Your task to perform on an android device: open app "Paramount+ | Peak Streaming" Image 0: 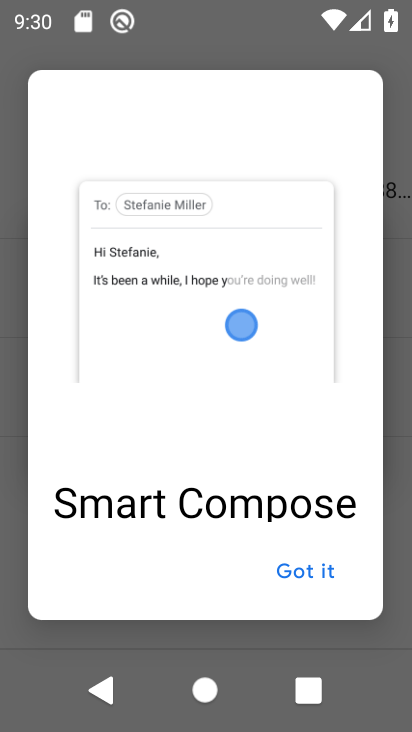
Step 0: press home button
Your task to perform on an android device: open app "Paramount+ | Peak Streaming" Image 1: 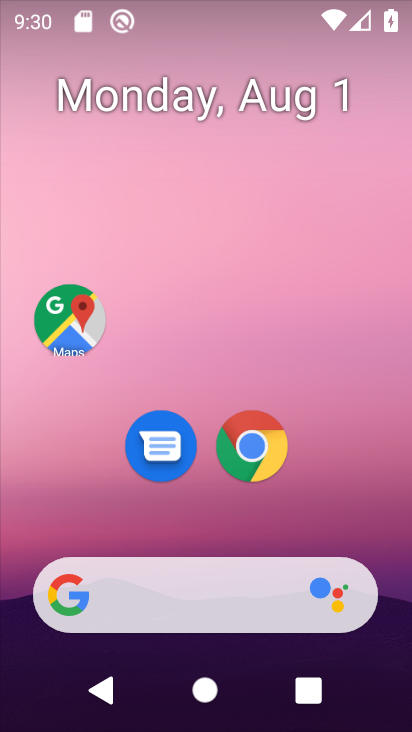
Step 1: drag from (140, 518) to (147, 52)
Your task to perform on an android device: open app "Paramount+ | Peak Streaming" Image 2: 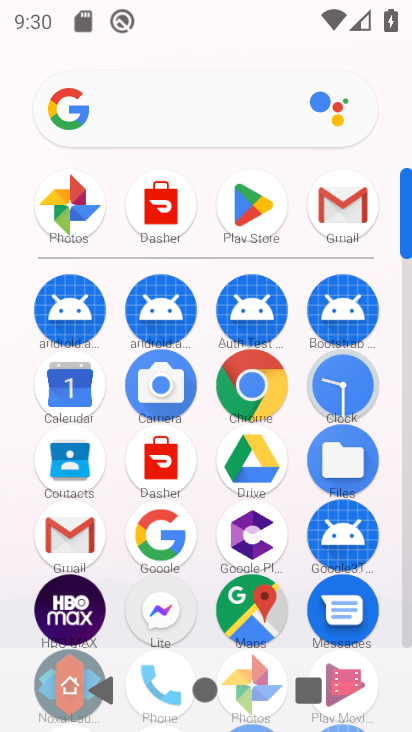
Step 2: click (242, 203)
Your task to perform on an android device: open app "Paramount+ | Peak Streaming" Image 3: 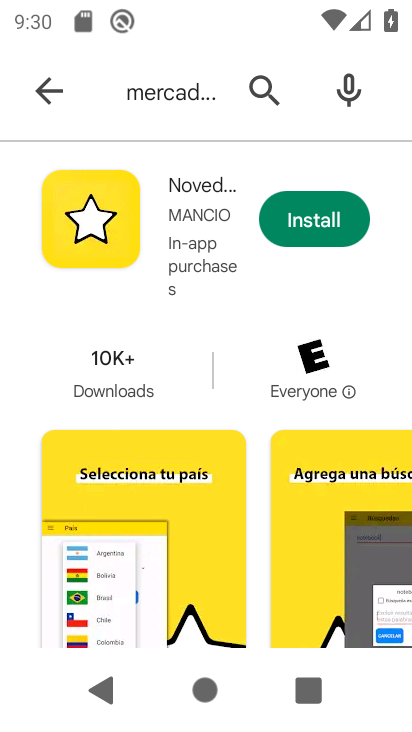
Step 3: click (252, 83)
Your task to perform on an android device: open app "Paramount+ | Peak Streaming" Image 4: 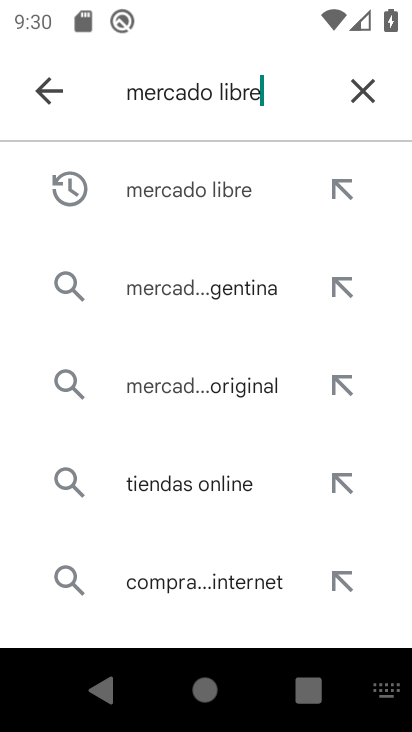
Step 4: click (351, 85)
Your task to perform on an android device: open app "Paramount+ | Peak Streaming" Image 5: 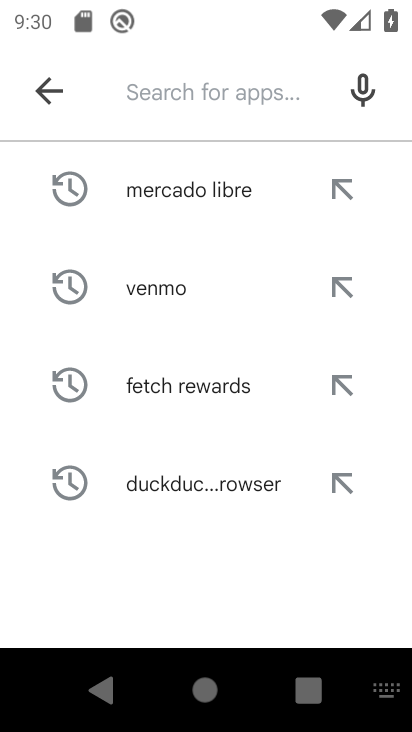
Step 5: type "Paramount+ | Peak Streaming"
Your task to perform on an android device: open app "Paramount+ | Peak Streaming" Image 6: 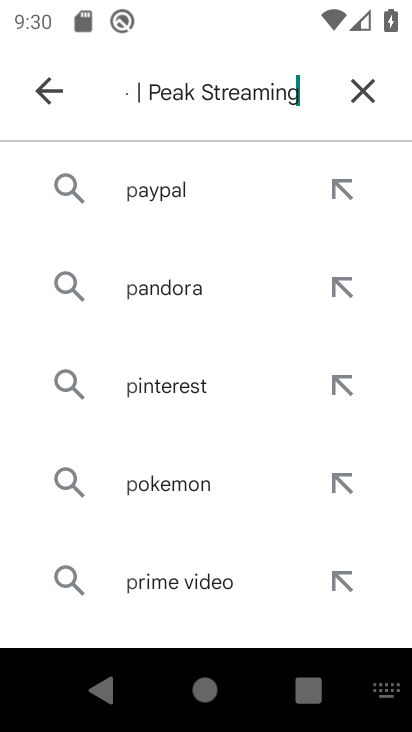
Step 6: type ""
Your task to perform on an android device: open app "Paramount+ | Peak Streaming" Image 7: 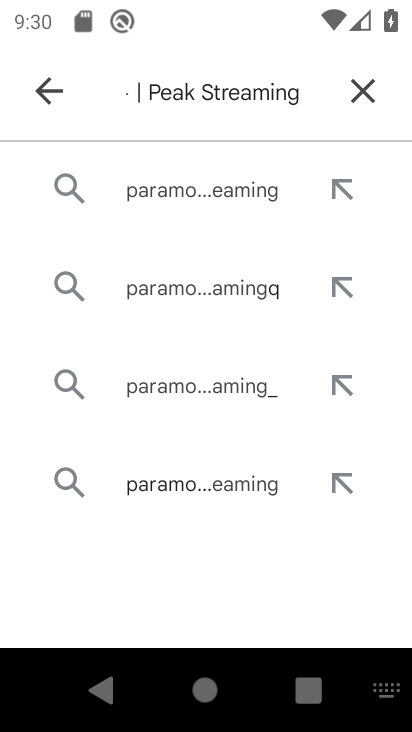
Step 7: click (201, 203)
Your task to perform on an android device: open app "Paramount+ | Peak Streaming" Image 8: 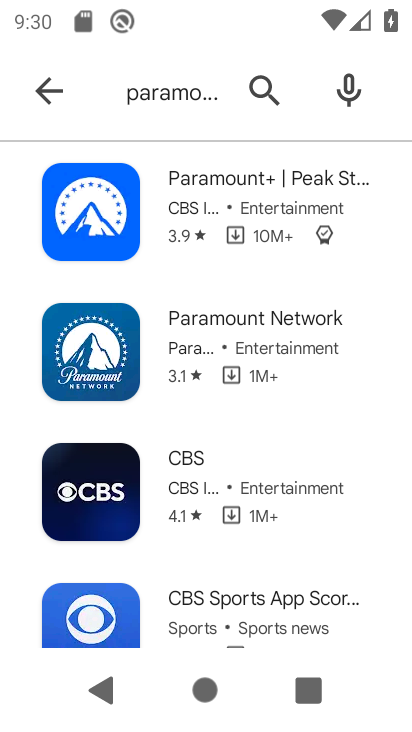
Step 8: click (264, 177)
Your task to perform on an android device: open app "Paramount+ | Peak Streaming" Image 9: 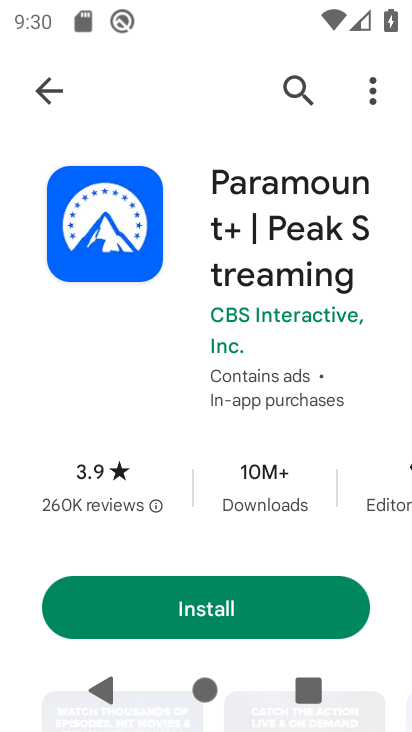
Step 9: task complete